Your task to perform on an android device: Go to battery settings Image 0: 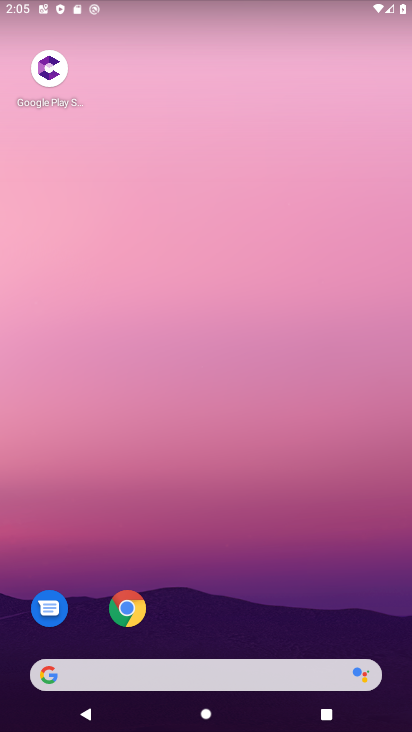
Step 0: drag from (225, 650) to (213, 80)
Your task to perform on an android device: Go to battery settings Image 1: 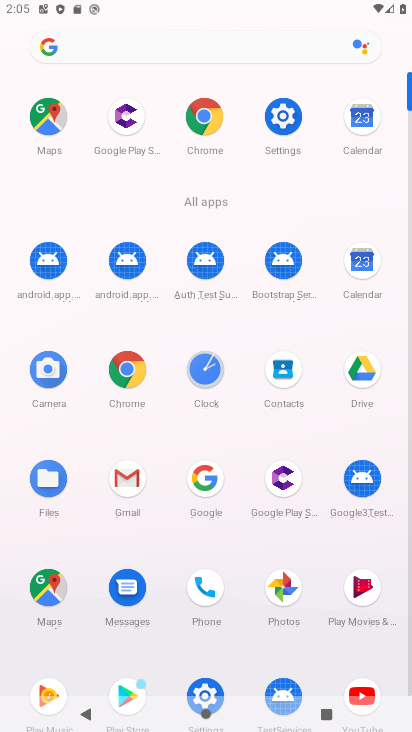
Step 1: click (284, 112)
Your task to perform on an android device: Go to battery settings Image 2: 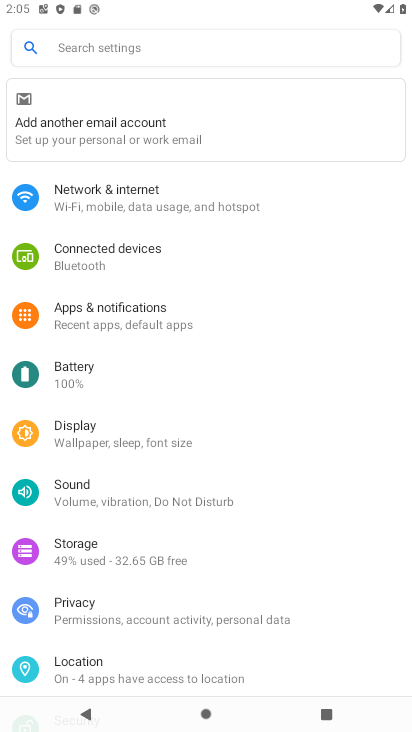
Step 2: click (84, 341)
Your task to perform on an android device: Go to battery settings Image 3: 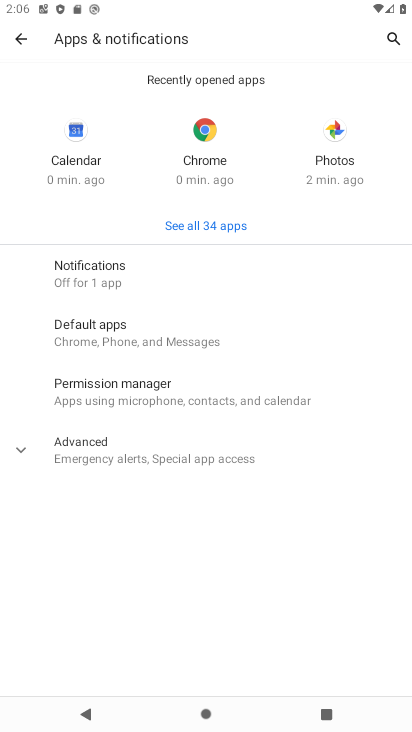
Step 3: click (26, 31)
Your task to perform on an android device: Go to battery settings Image 4: 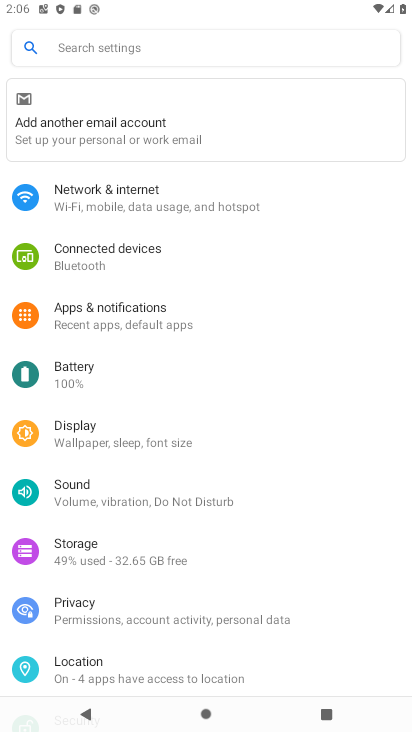
Step 4: click (75, 372)
Your task to perform on an android device: Go to battery settings Image 5: 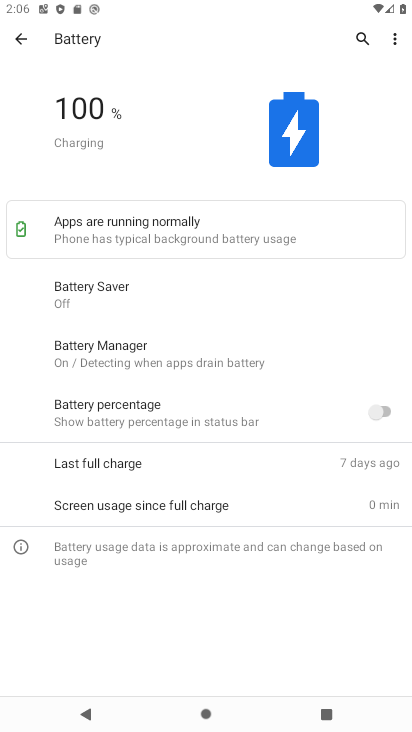
Step 5: task complete